Your task to perform on an android device: When is my next appointment? Image 0: 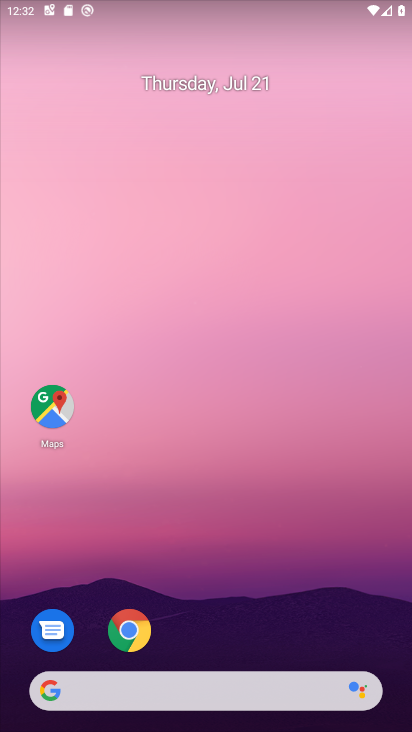
Step 0: drag from (199, 585) to (242, 318)
Your task to perform on an android device: When is my next appointment? Image 1: 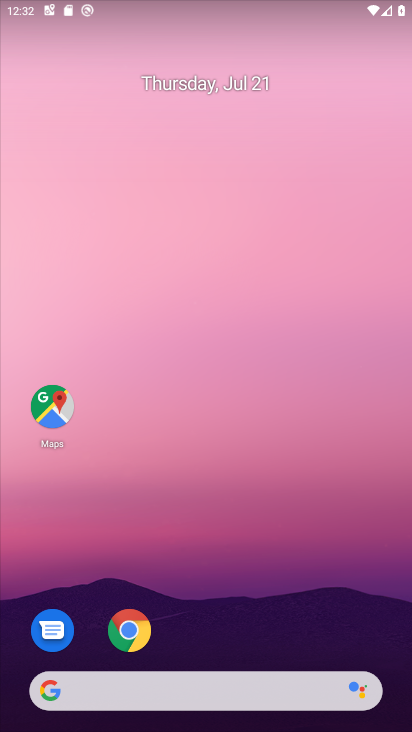
Step 1: drag from (194, 597) to (282, 32)
Your task to perform on an android device: When is my next appointment? Image 2: 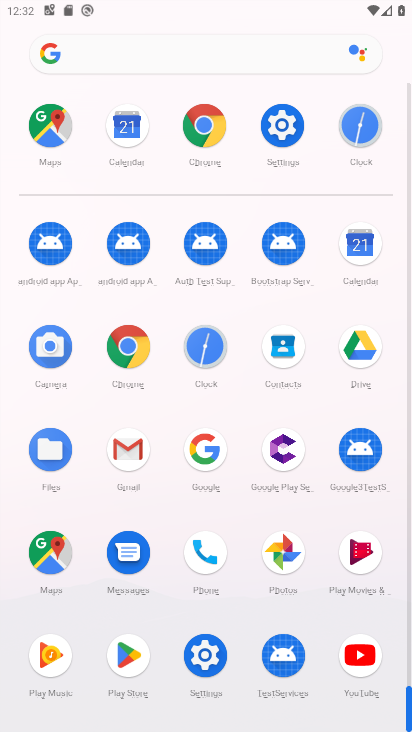
Step 2: click (351, 242)
Your task to perform on an android device: When is my next appointment? Image 3: 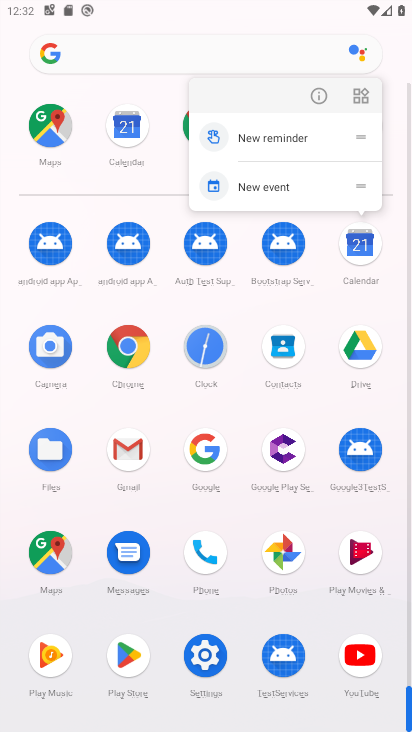
Step 3: click (319, 101)
Your task to perform on an android device: When is my next appointment? Image 4: 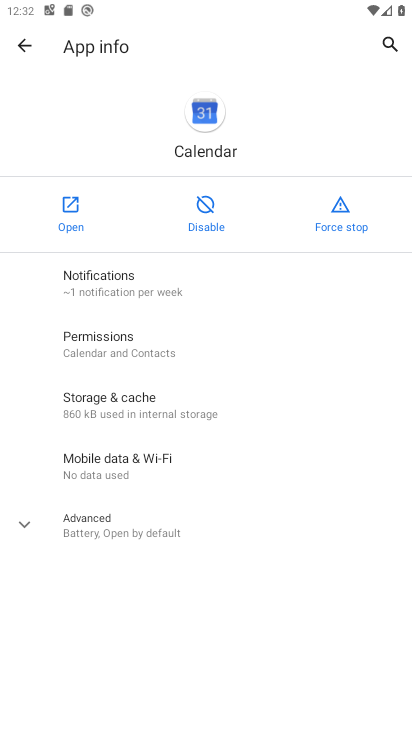
Step 4: click (70, 196)
Your task to perform on an android device: When is my next appointment? Image 5: 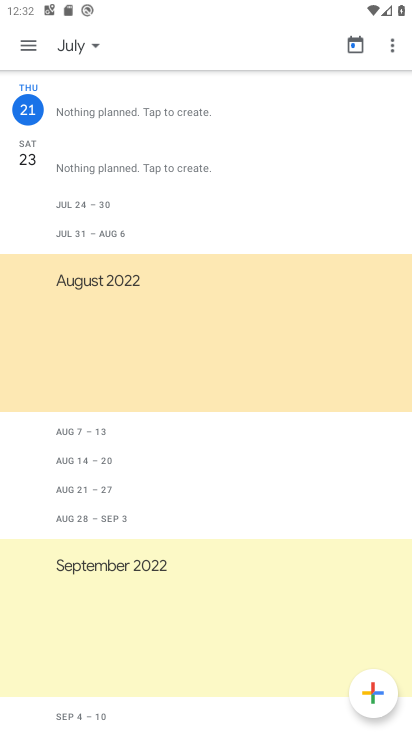
Step 5: click (85, 37)
Your task to perform on an android device: When is my next appointment? Image 6: 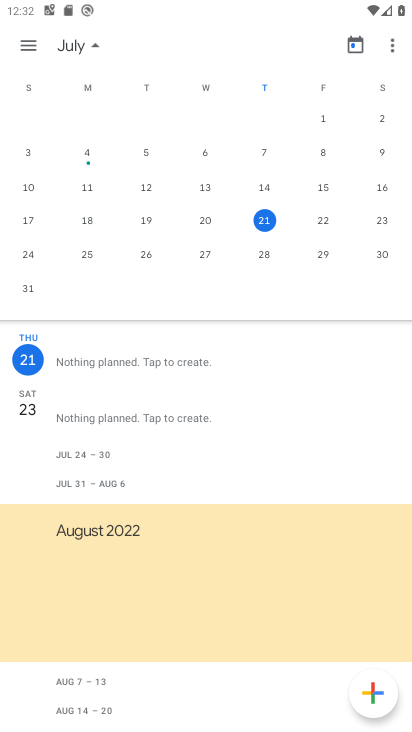
Step 6: click (262, 220)
Your task to perform on an android device: When is my next appointment? Image 7: 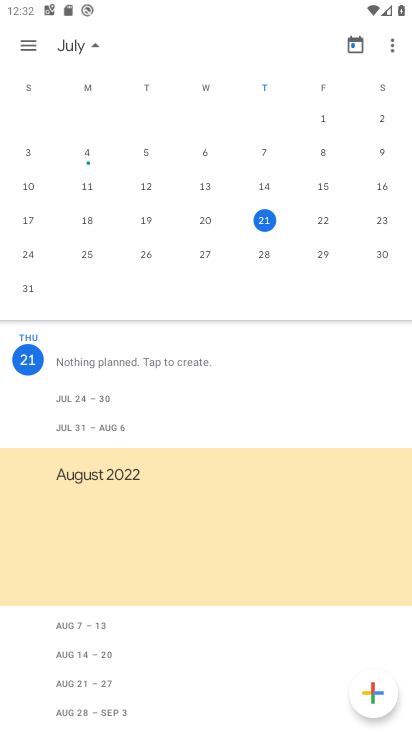
Step 7: task complete